Your task to perform on an android device: set default search engine in the chrome app Image 0: 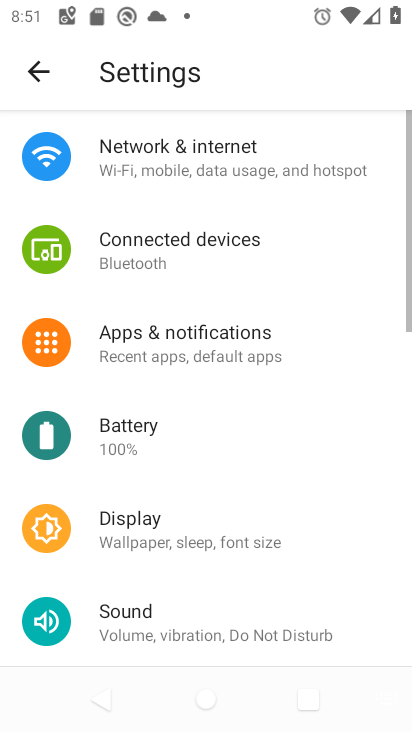
Step 0: press home button
Your task to perform on an android device: set default search engine in the chrome app Image 1: 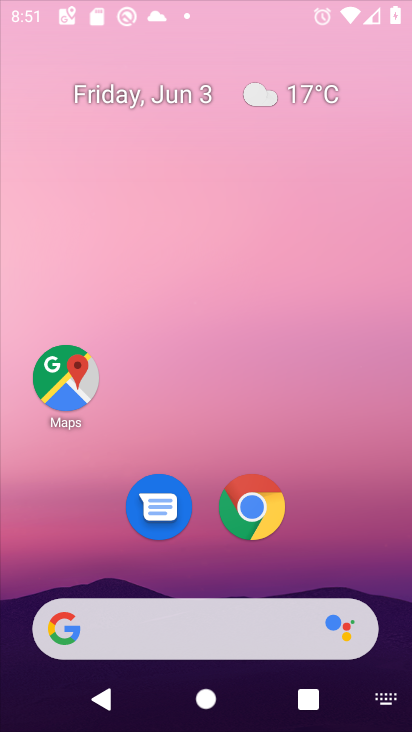
Step 1: drag from (337, 493) to (239, 14)
Your task to perform on an android device: set default search engine in the chrome app Image 2: 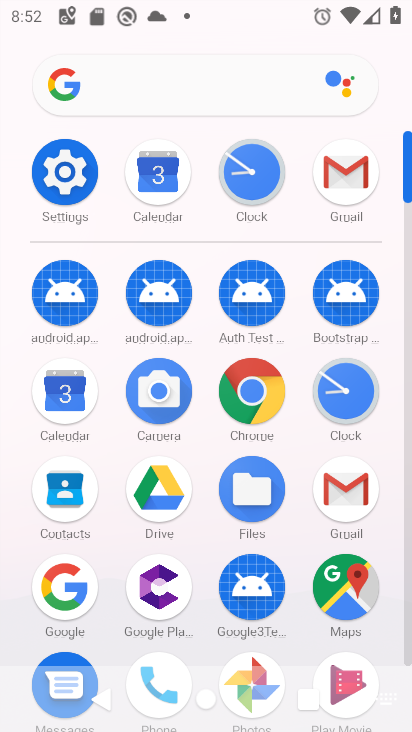
Step 2: click (239, 403)
Your task to perform on an android device: set default search engine in the chrome app Image 3: 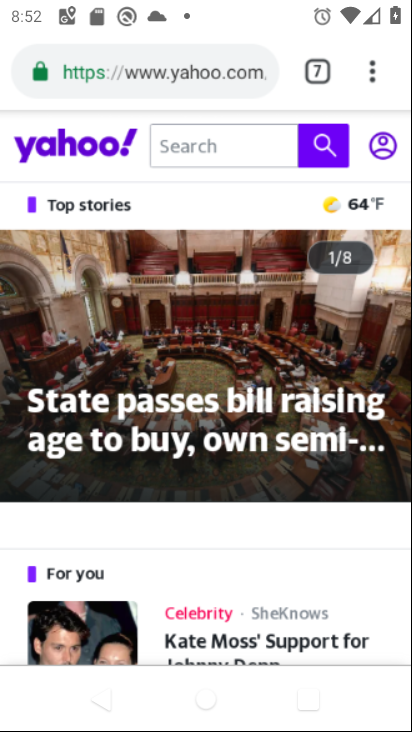
Step 3: click (363, 77)
Your task to perform on an android device: set default search engine in the chrome app Image 4: 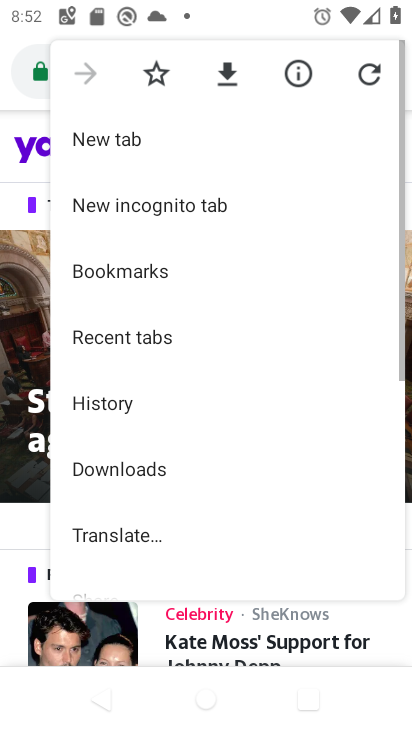
Step 4: drag from (216, 475) to (206, 12)
Your task to perform on an android device: set default search engine in the chrome app Image 5: 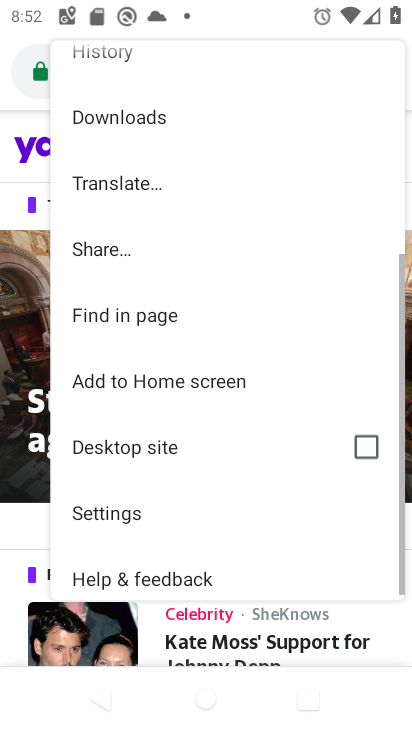
Step 5: click (124, 488)
Your task to perform on an android device: set default search engine in the chrome app Image 6: 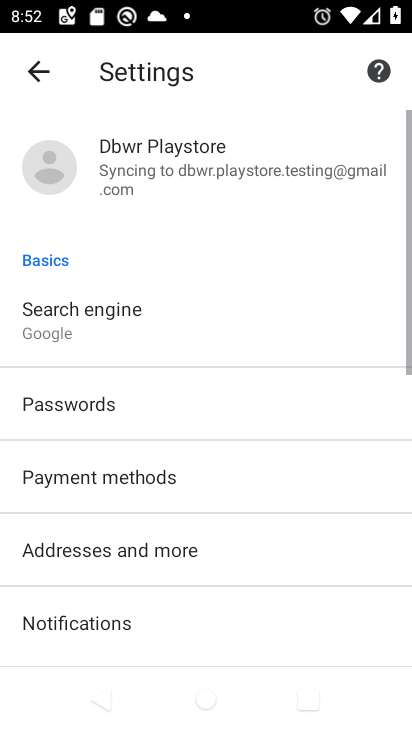
Step 6: drag from (229, 547) to (231, 120)
Your task to perform on an android device: set default search engine in the chrome app Image 7: 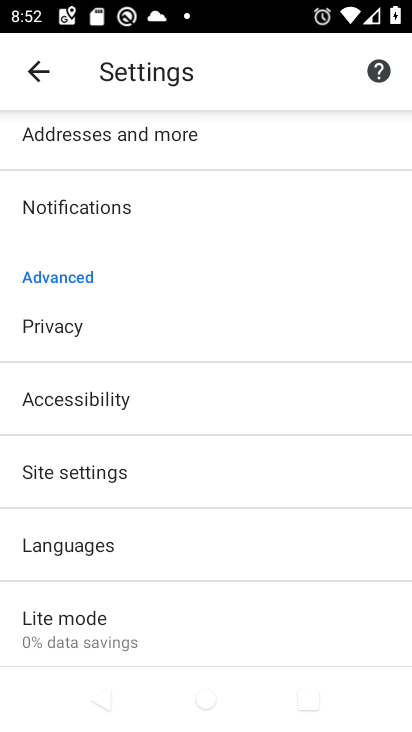
Step 7: drag from (254, 219) to (230, 682)
Your task to perform on an android device: set default search engine in the chrome app Image 8: 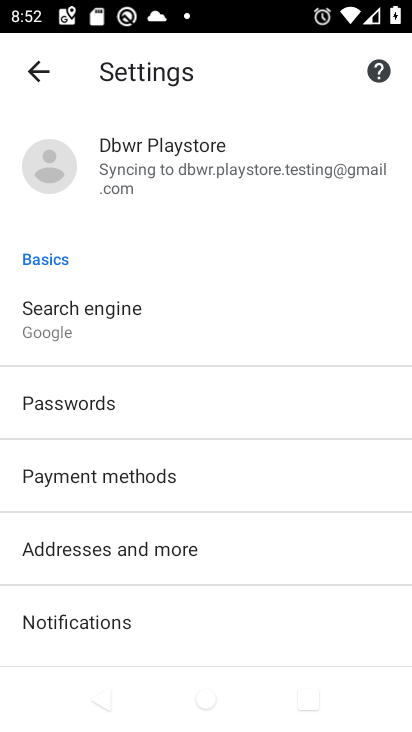
Step 8: click (96, 313)
Your task to perform on an android device: set default search engine in the chrome app Image 9: 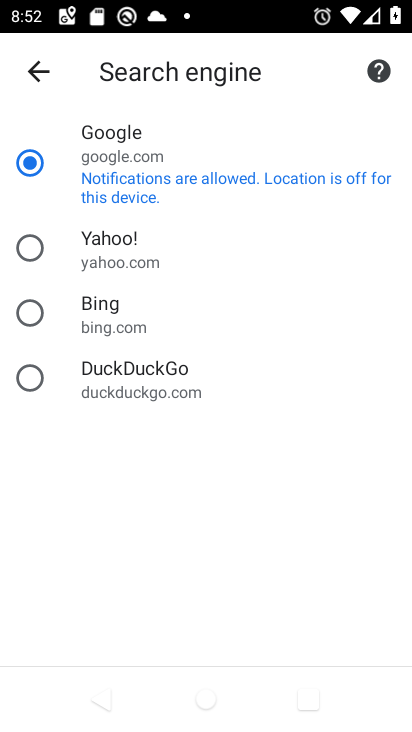
Step 9: click (197, 136)
Your task to perform on an android device: set default search engine in the chrome app Image 10: 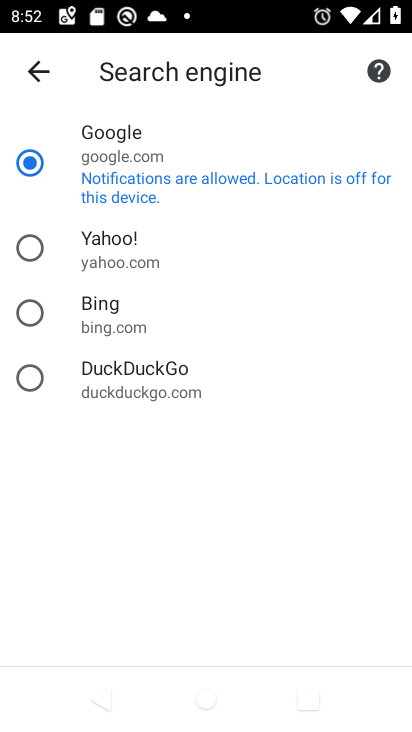
Step 10: task complete